Your task to perform on an android device: check storage Image 0: 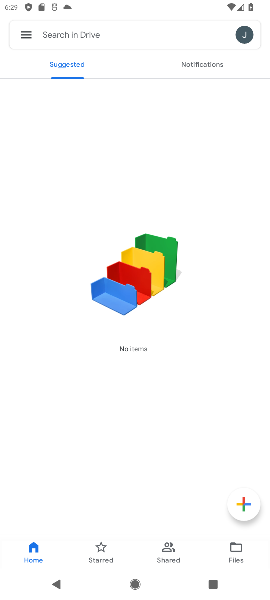
Step 0: press home button
Your task to perform on an android device: check storage Image 1: 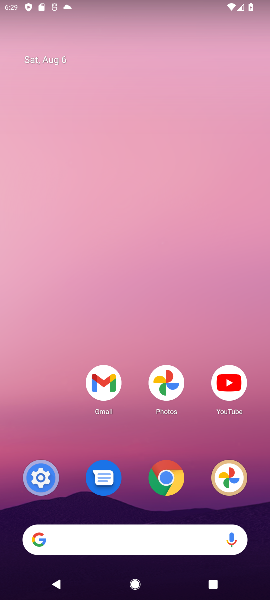
Step 1: drag from (151, 314) to (173, 47)
Your task to perform on an android device: check storage Image 2: 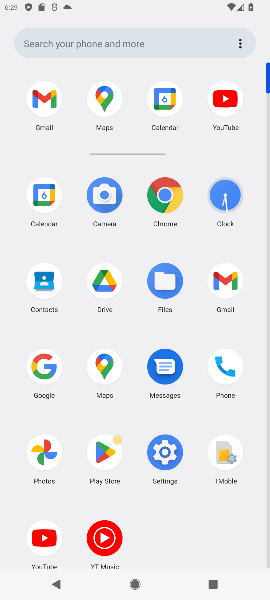
Step 2: click (172, 436)
Your task to perform on an android device: check storage Image 3: 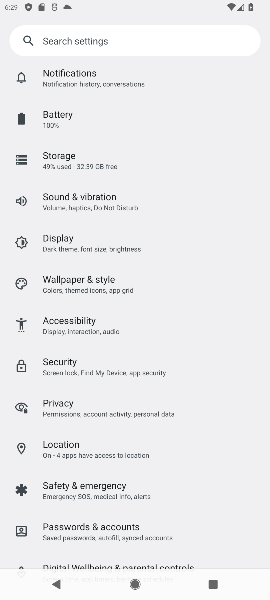
Step 3: click (63, 158)
Your task to perform on an android device: check storage Image 4: 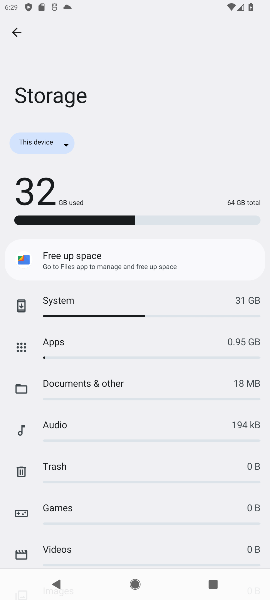
Step 4: task complete